Your task to perform on an android device: check the backup settings in the google photos Image 0: 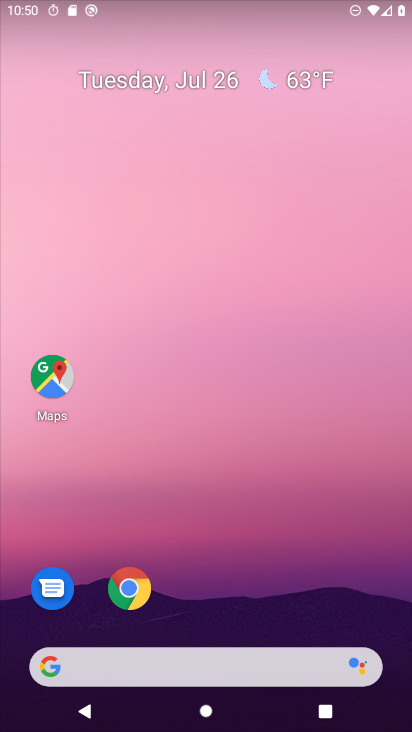
Step 0: drag from (265, 467) to (191, 38)
Your task to perform on an android device: check the backup settings in the google photos Image 1: 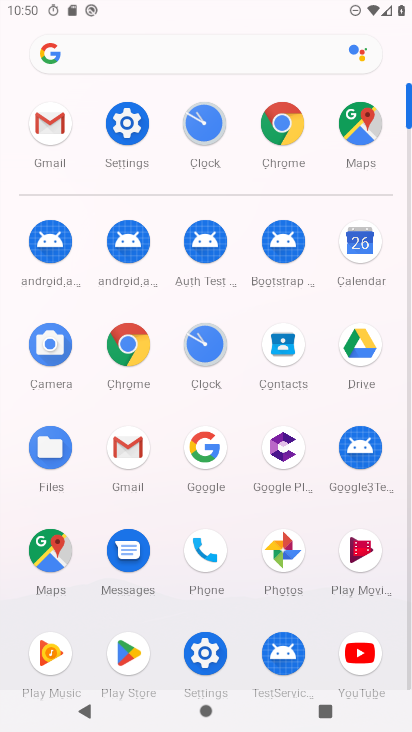
Step 1: click (282, 562)
Your task to perform on an android device: check the backup settings in the google photos Image 2: 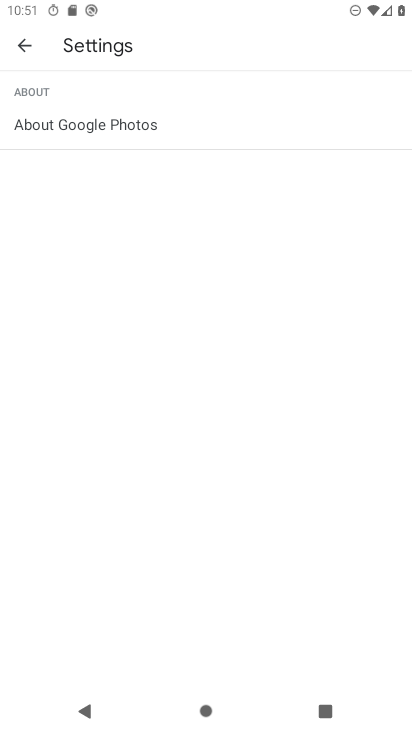
Step 2: click (22, 39)
Your task to perform on an android device: check the backup settings in the google photos Image 3: 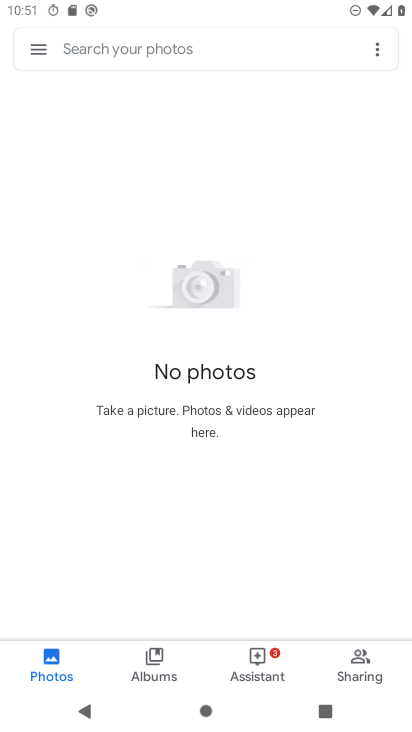
Step 3: click (35, 54)
Your task to perform on an android device: check the backup settings in the google photos Image 4: 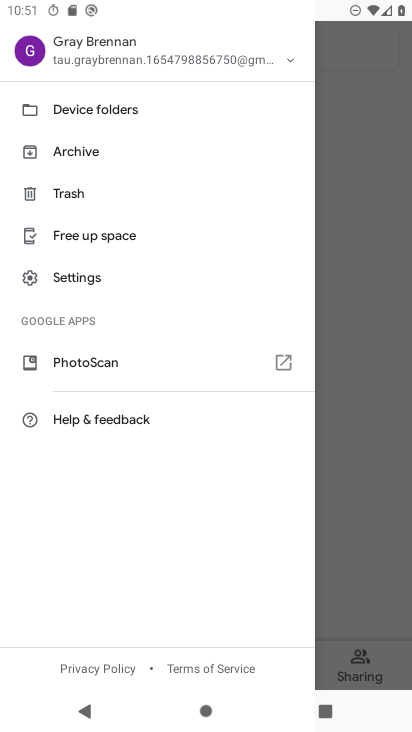
Step 4: click (68, 279)
Your task to perform on an android device: check the backup settings in the google photos Image 5: 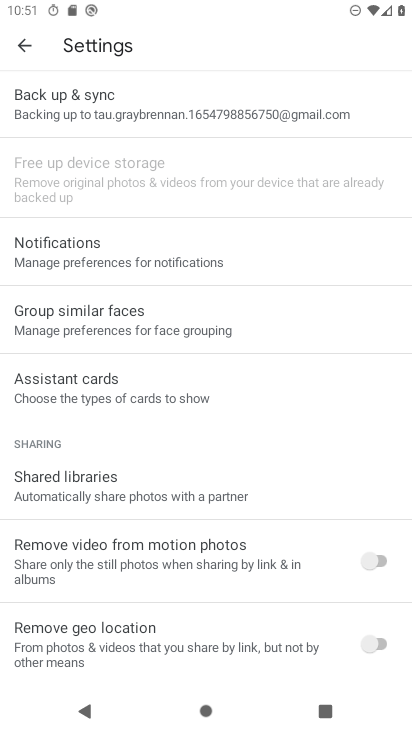
Step 5: click (108, 119)
Your task to perform on an android device: check the backup settings in the google photos Image 6: 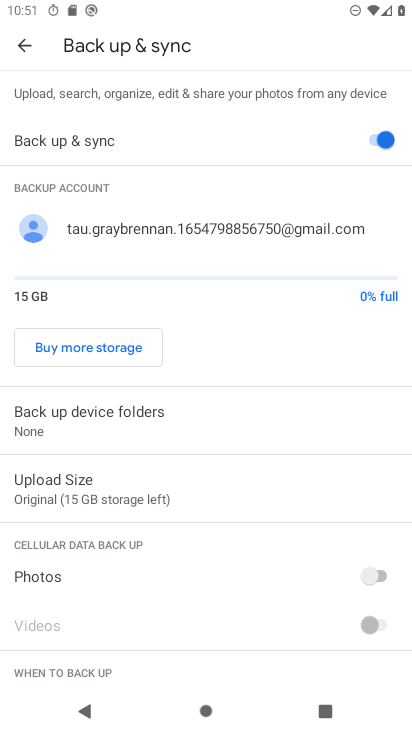
Step 6: task complete